Your task to perform on an android device: Go to privacy settings Image 0: 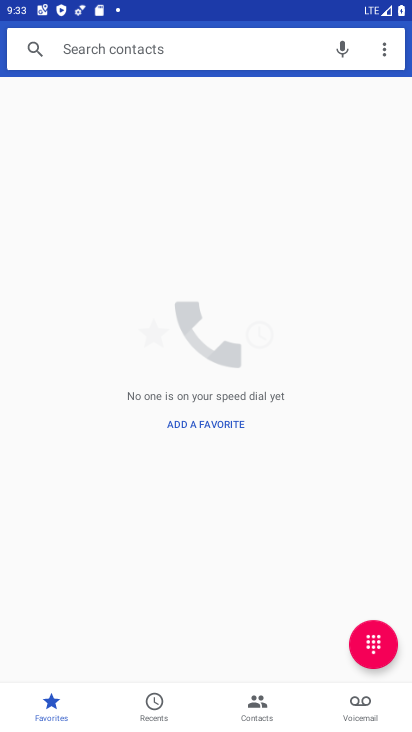
Step 0: press home button
Your task to perform on an android device: Go to privacy settings Image 1: 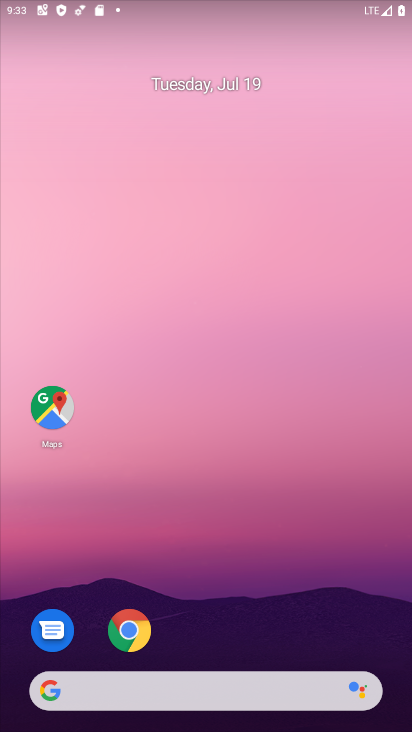
Step 1: drag from (254, 602) to (297, 221)
Your task to perform on an android device: Go to privacy settings Image 2: 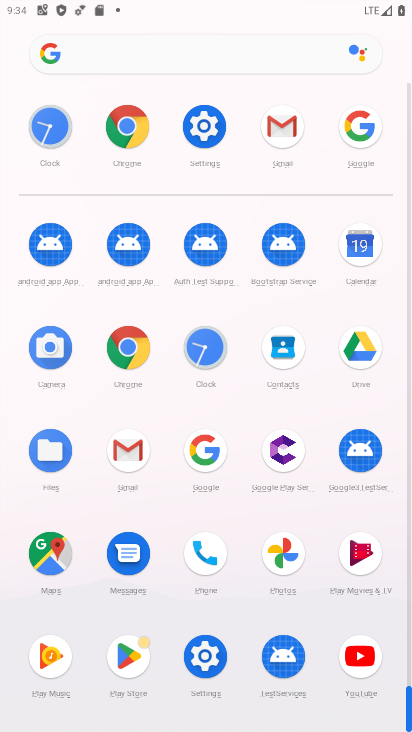
Step 2: click (198, 138)
Your task to perform on an android device: Go to privacy settings Image 3: 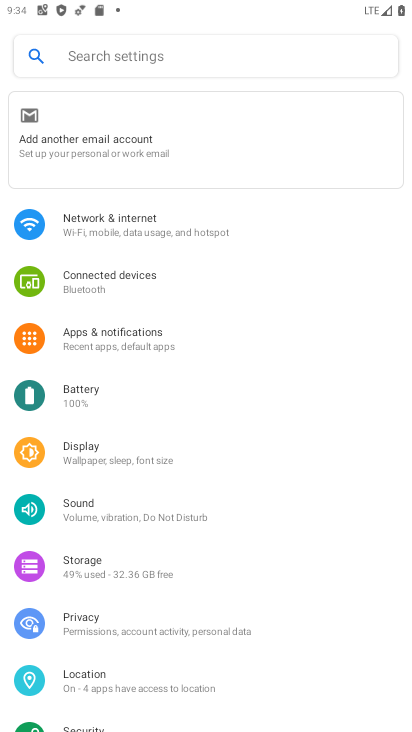
Step 3: click (126, 622)
Your task to perform on an android device: Go to privacy settings Image 4: 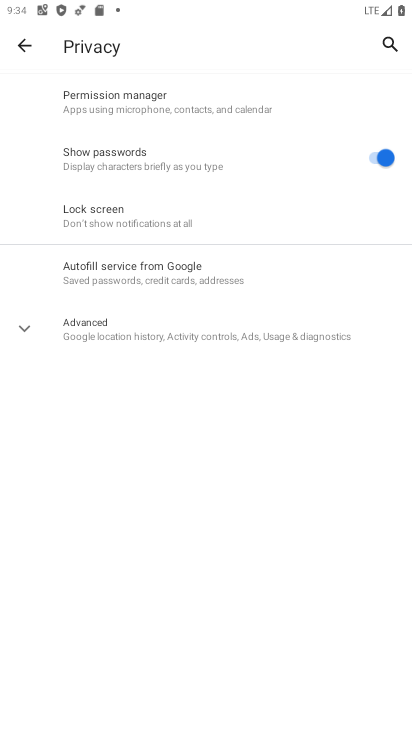
Step 4: task complete